Your task to perform on an android device: Open Amazon Image 0: 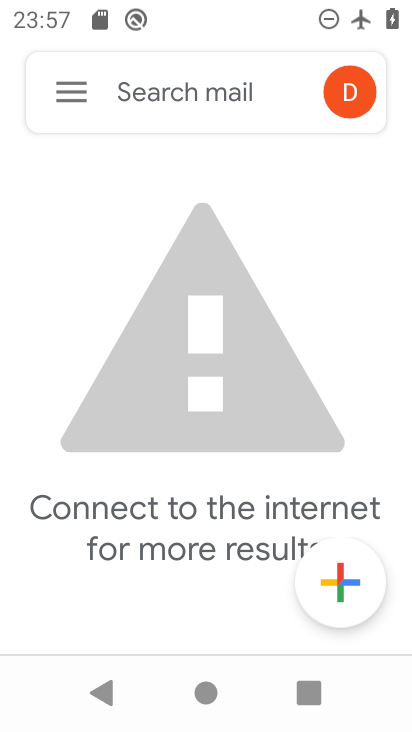
Step 0: press home button
Your task to perform on an android device: Open Amazon Image 1: 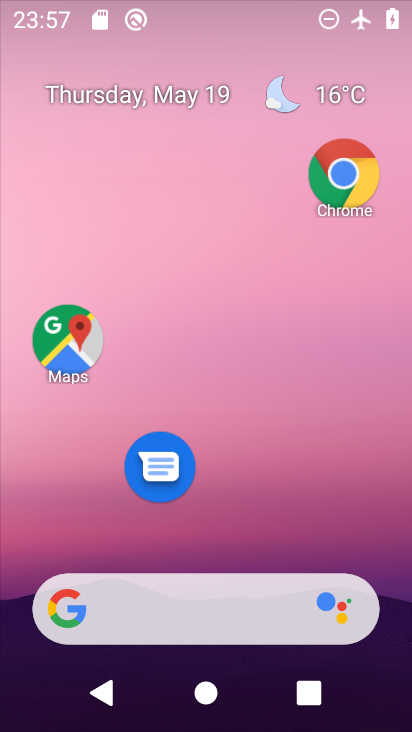
Step 1: drag from (279, 559) to (277, 305)
Your task to perform on an android device: Open Amazon Image 2: 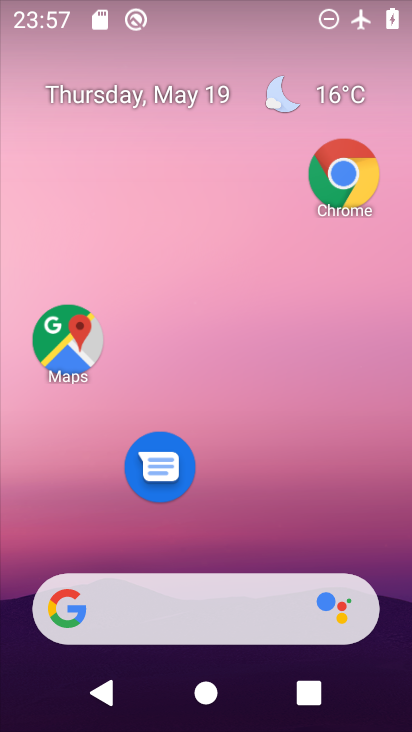
Step 2: click (344, 176)
Your task to perform on an android device: Open Amazon Image 3: 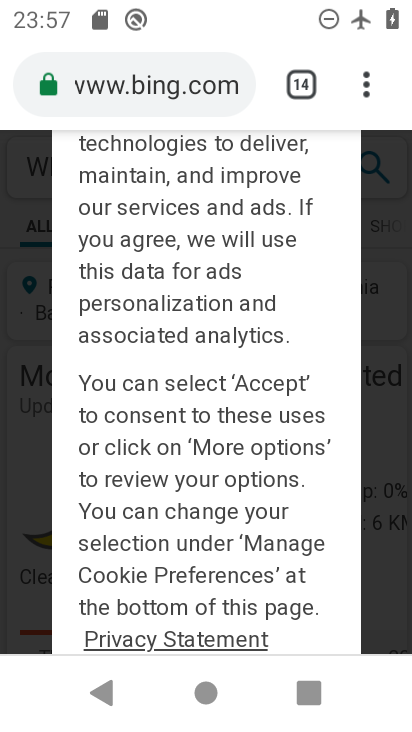
Step 3: click (359, 51)
Your task to perform on an android device: Open Amazon Image 4: 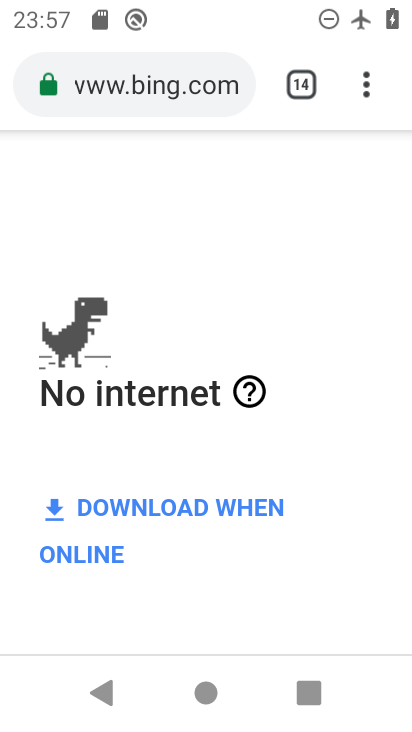
Step 4: click (380, 94)
Your task to perform on an android device: Open Amazon Image 5: 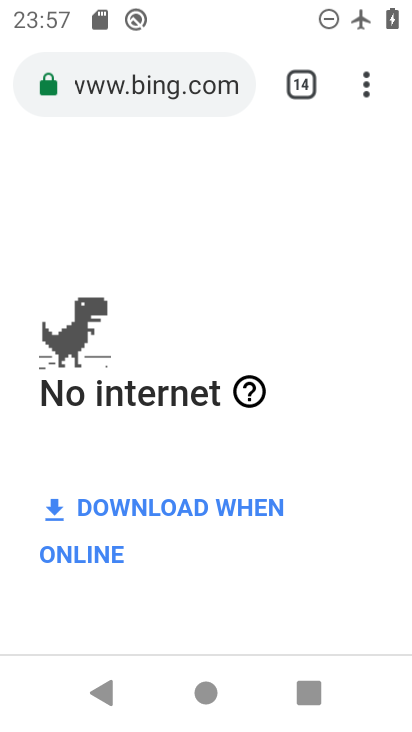
Step 5: click (374, 75)
Your task to perform on an android device: Open Amazon Image 6: 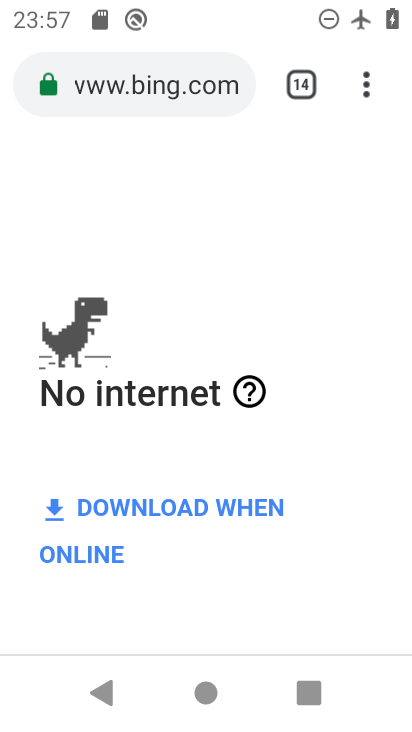
Step 6: click (373, 74)
Your task to perform on an android device: Open Amazon Image 7: 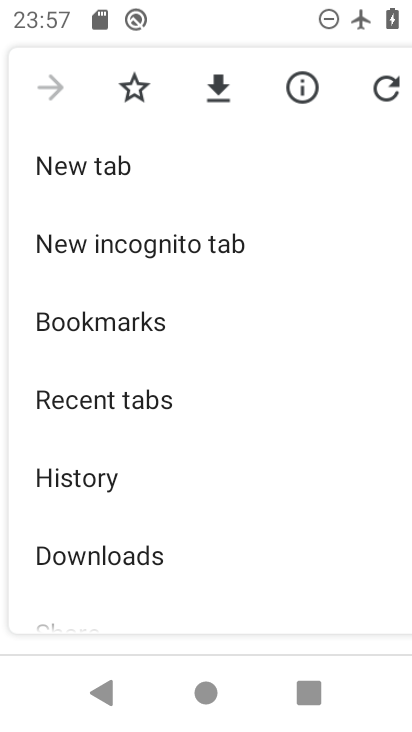
Step 7: click (106, 139)
Your task to perform on an android device: Open Amazon Image 8: 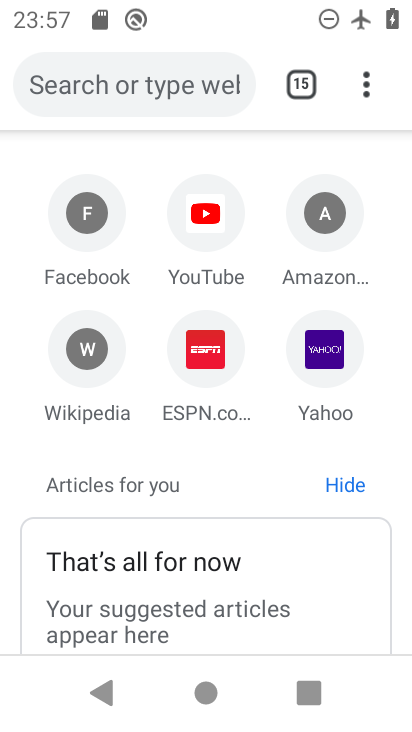
Step 8: click (312, 224)
Your task to perform on an android device: Open Amazon Image 9: 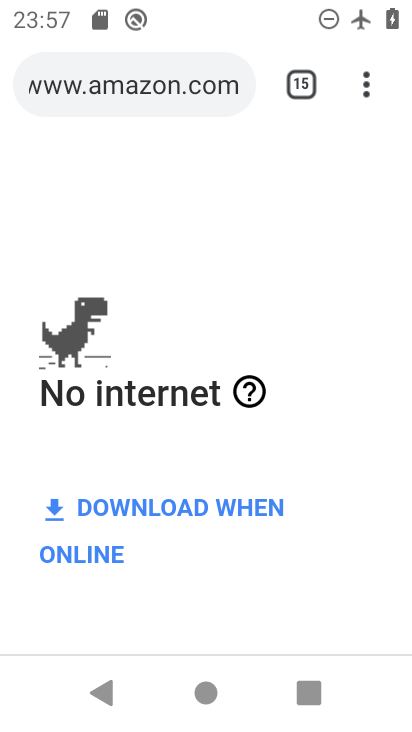
Step 9: task complete